Your task to perform on an android device: What's the weather like in Los Angeles? Image 0: 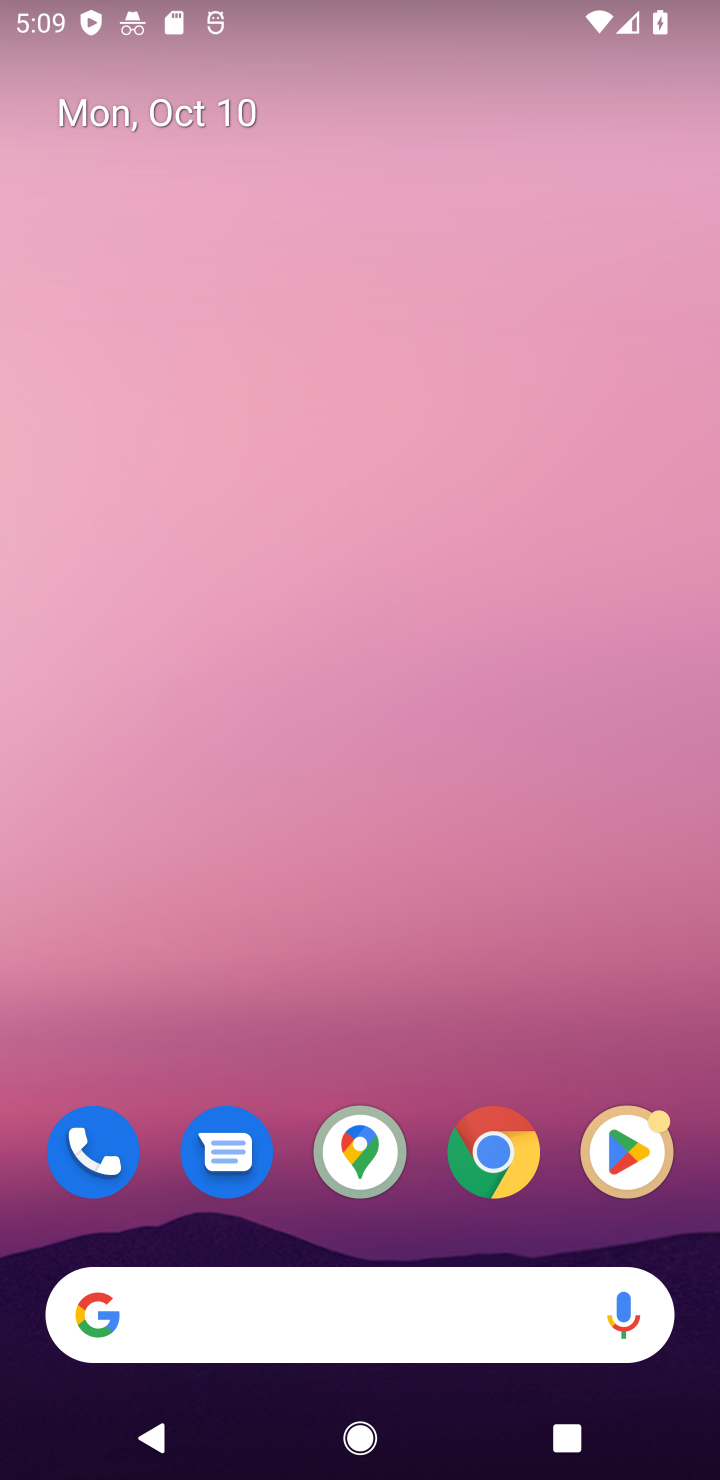
Step 0: click (495, 1155)
Your task to perform on an android device: What's the weather like in Los Angeles? Image 1: 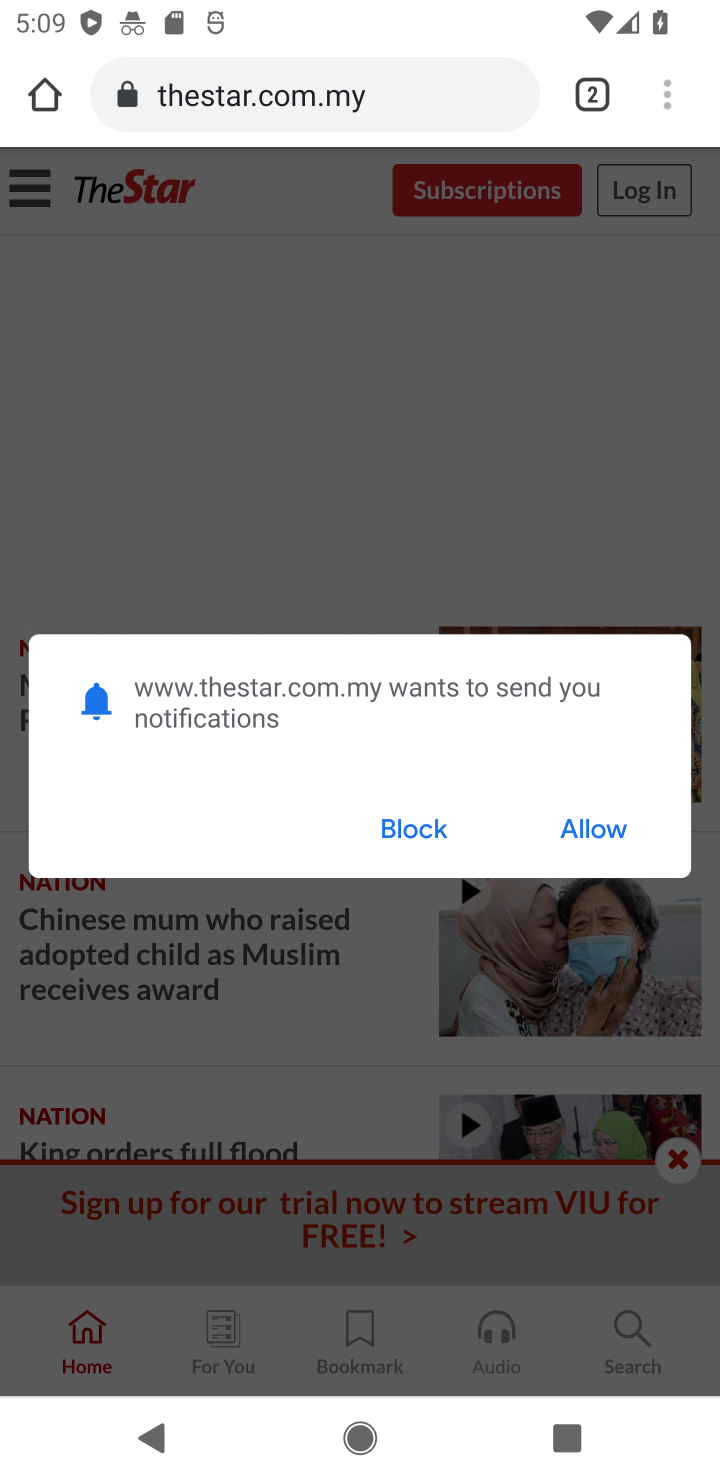
Step 1: click (356, 80)
Your task to perform on an android device: What's the weather like in Los Angeles? Image 2: 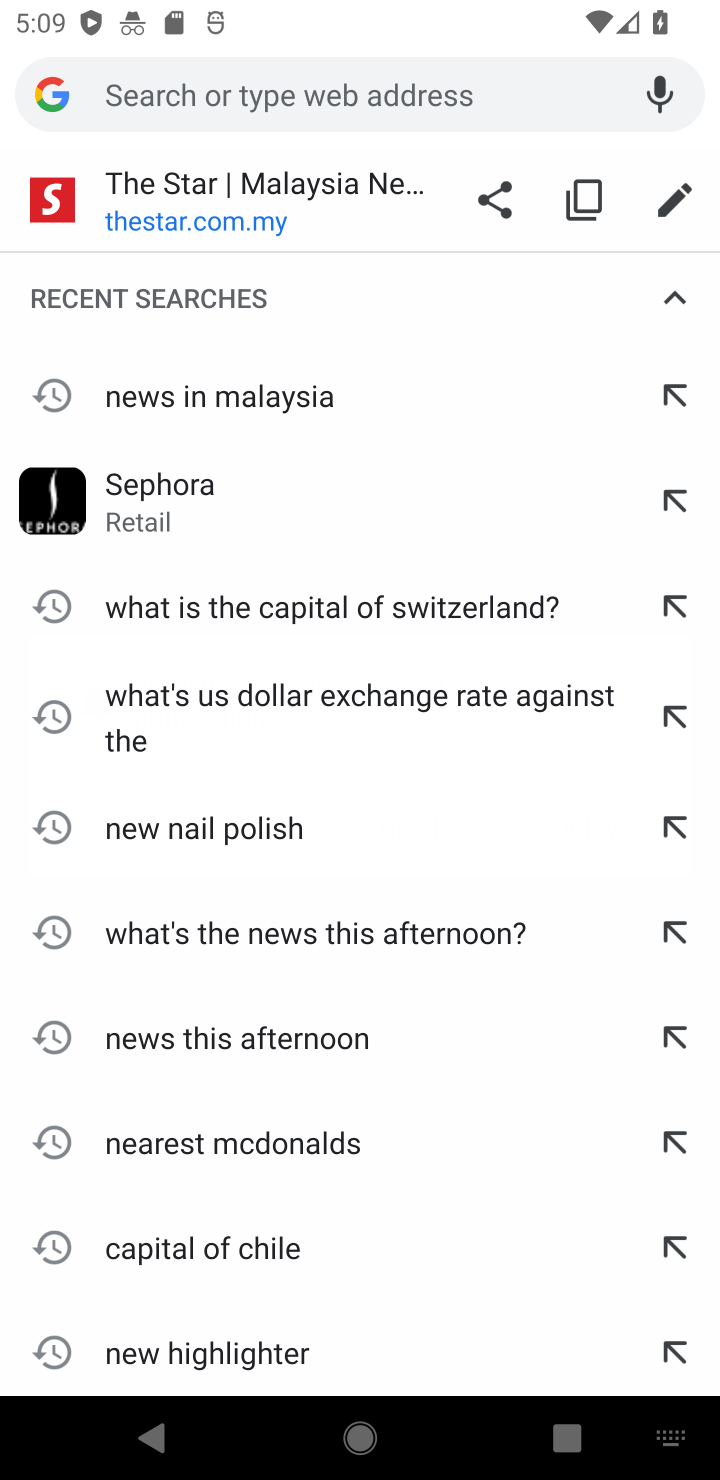
Step 2: type "What's the weather like in Los Angeles?"
Your task to perform on an android device: What's the weather like in Los Angeles? Image 3: 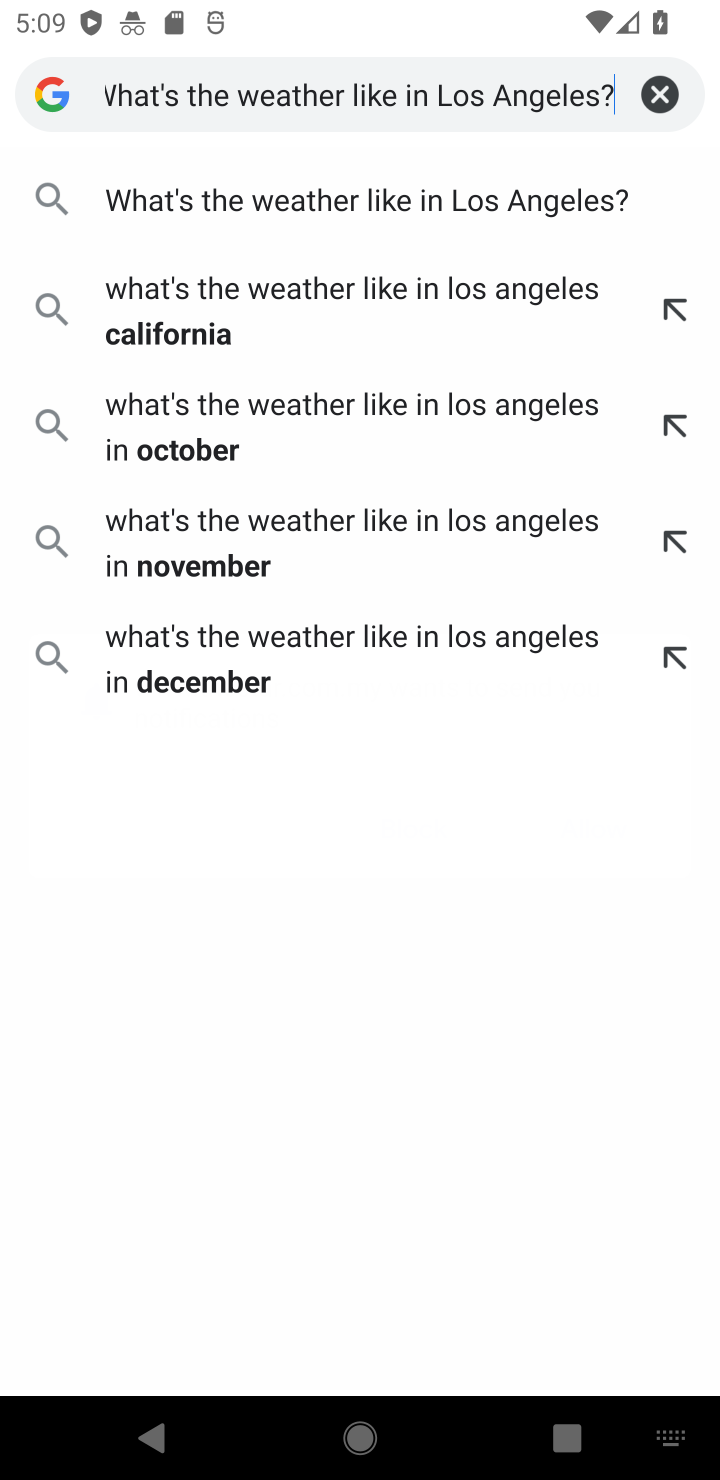
Step 3: click (397, 191)
Your task to perform on an android device: What's the weather like in Los Angeles? Image 4: 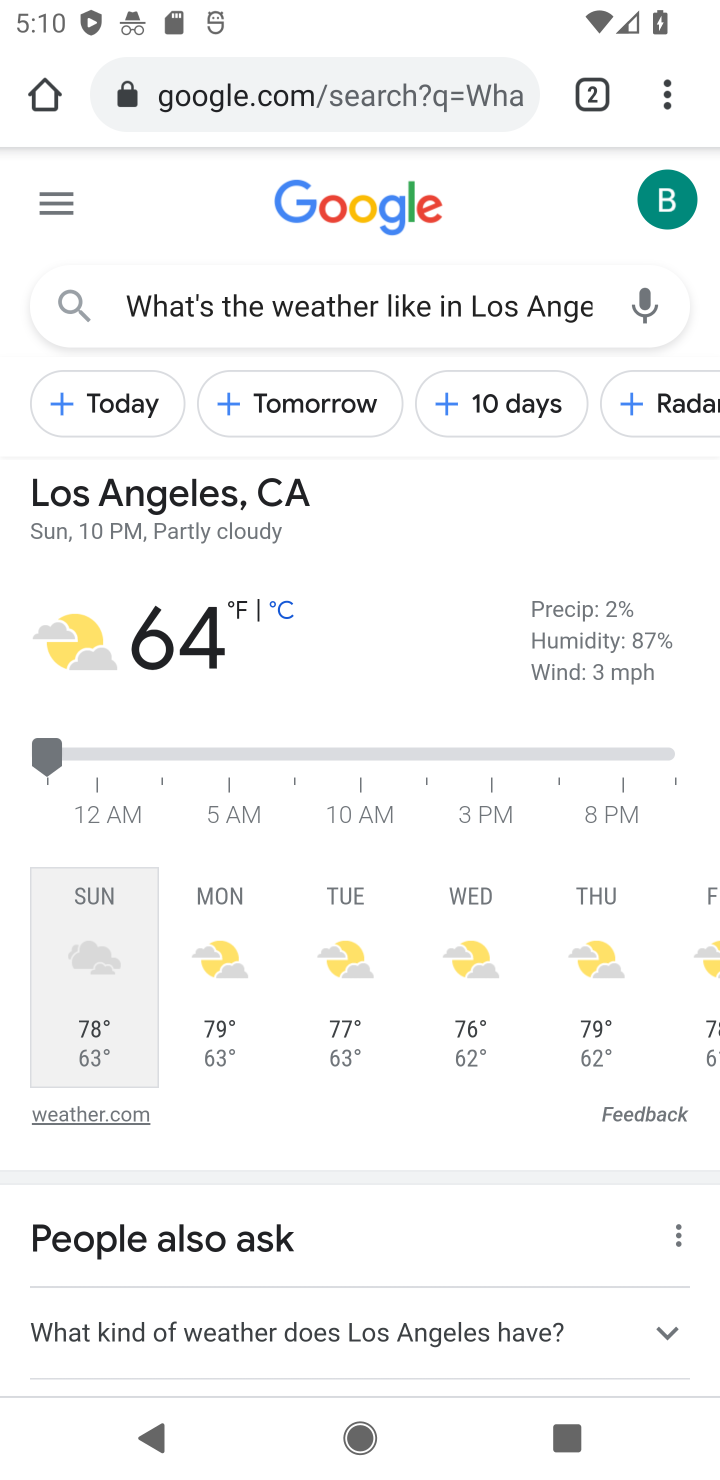
Step 4: task complete